Your task to perform on an android device: check android version Image 0: 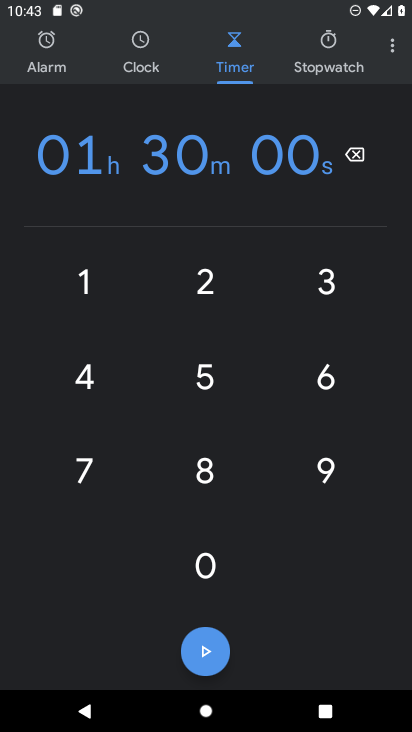
Step 0: press home button
Your task to perform on an android device: check android version Image 1: 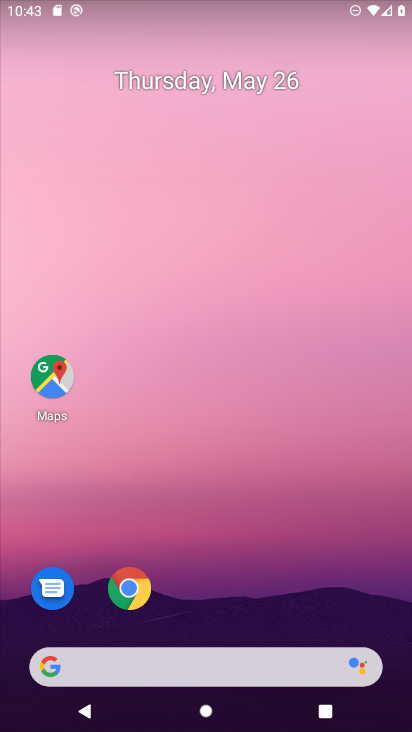
Step 1: drag from (393, 613) to (320, 187)
Your task to perform on an android device: check android version Image 2: 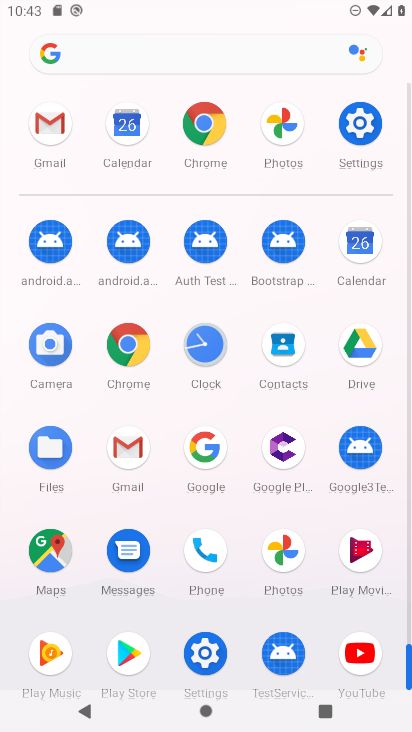
Step 2: click (206, 655)
Your task to perform on an android device: check android version Image 3: 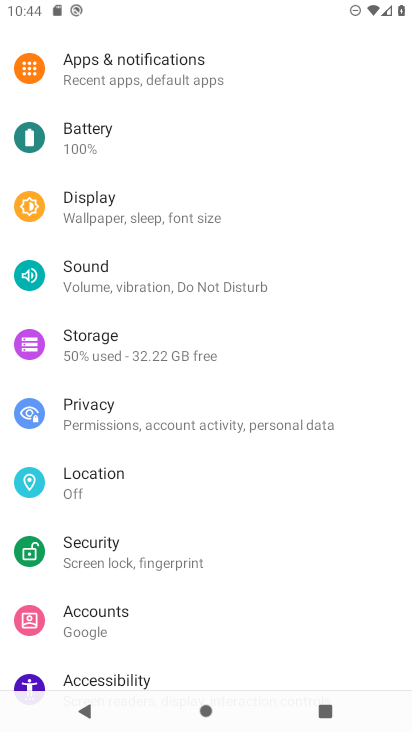
Step 3: drag from (228, 632) to (305, 285)
Your task to perform on an android device: check android version Image 4: 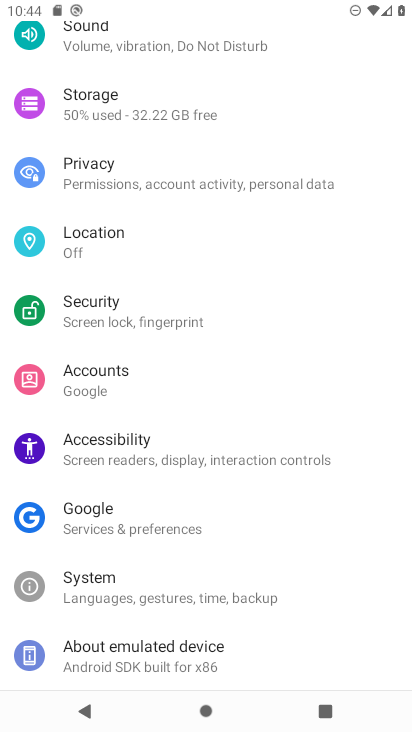
Step 4: click (116, 652)
Your task to perform on an android device: check android version Image 5: 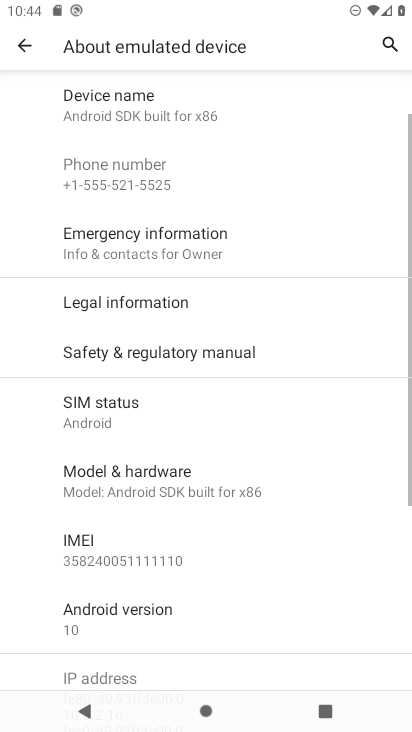
Step 5: click (101, 603)
Your task to perform on an android device: check android version Image 6: 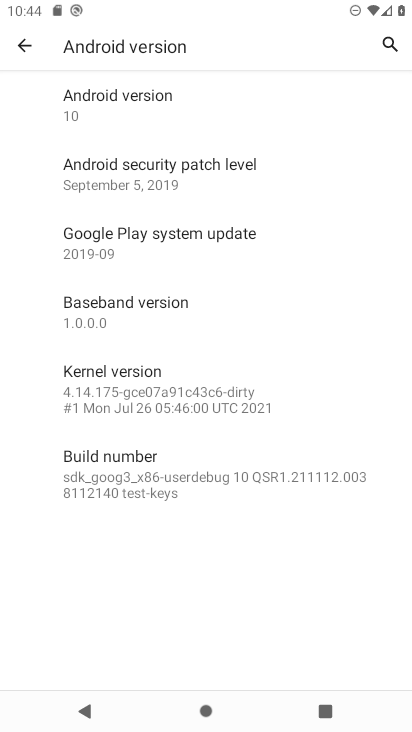
Step 6: task complete